Your task to perform on an android device: toggle data saver in the chrome app Image 0: 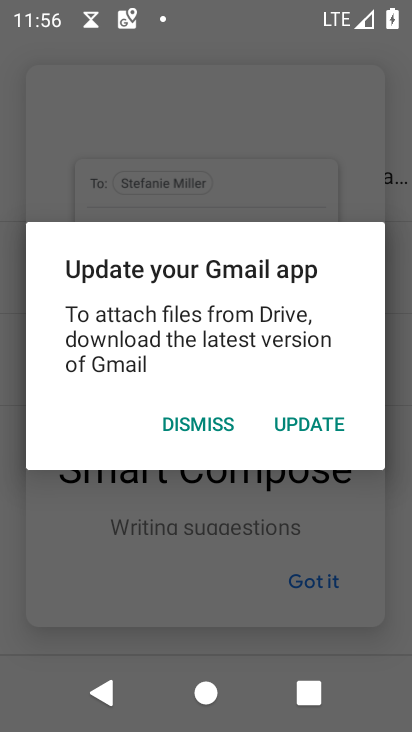
Step 0: press home button
Your task to perform on an android device: toggle data saver in the chrome app Image 1: 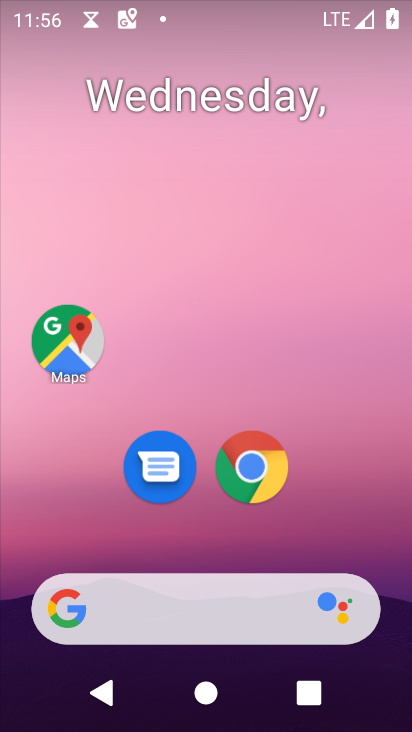
Step 1: click (248, 495)
Your task to perform on an android device: toggle data saver in the chrome app Image 2: 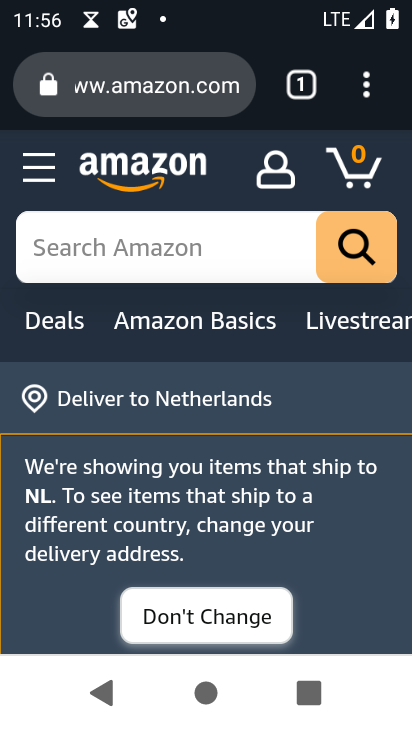
Step 2: drag from (369, 104) to (189, 514)
Your task to perform on an android device: toggle data saver in the chrome app Image 3: 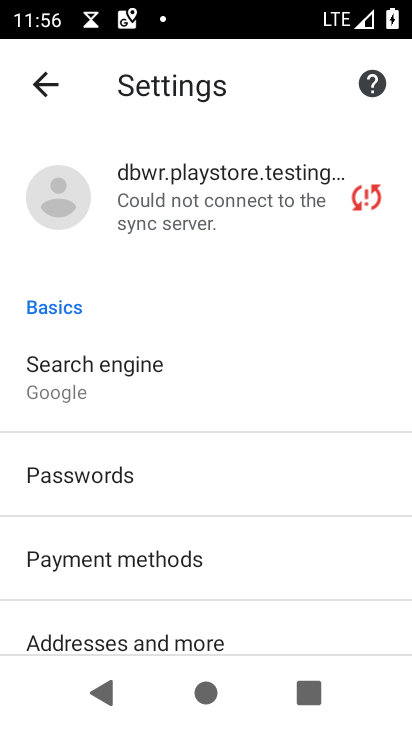
Step 3: drag from (189, 635) to (276, 335)
Your task to perform on an android device: toggle data saver in the chrome app Image 4: 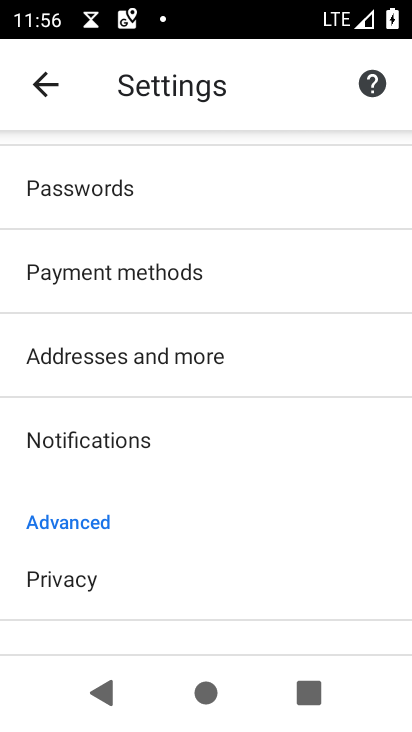
Step 4: drag from (204, 536) to (317, 219)
Your task to perform on an android device: toggle data saver in the chrome app Image 5: 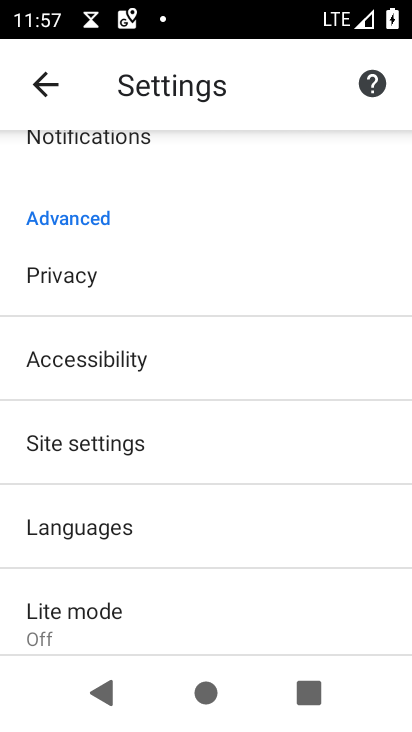
Step 5: click (89, 618)
Your task to perform on an android device: toggle data saver in the chrome app Image 6: 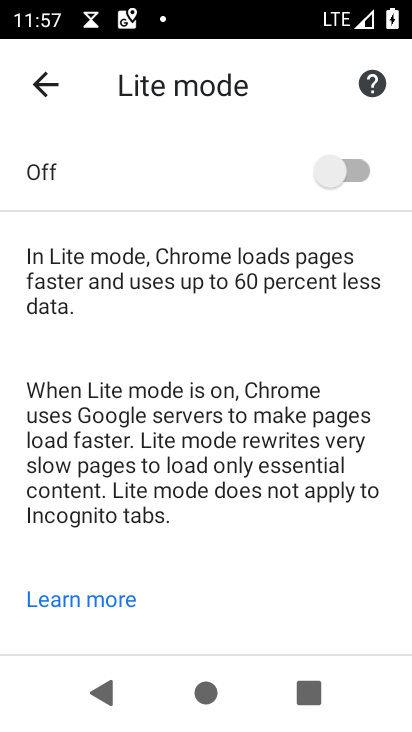
Step 6: click (349, 172)
Your task to perform on an android device: toggle data saver in the chrome app Image 7: 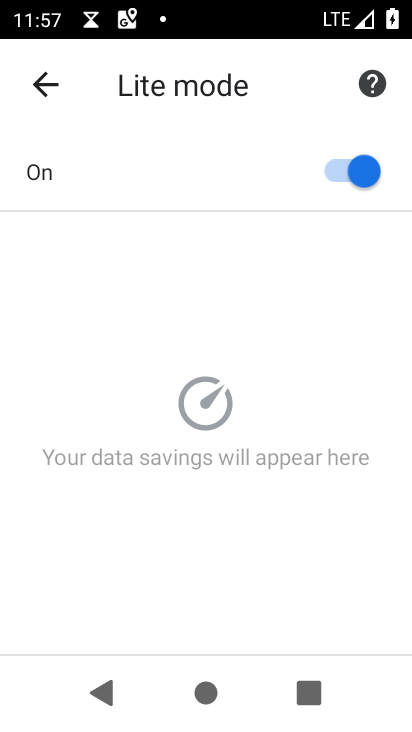
Step 7: task complete